Your task to perform on an android device: Set an alarm for 7am Image 0: 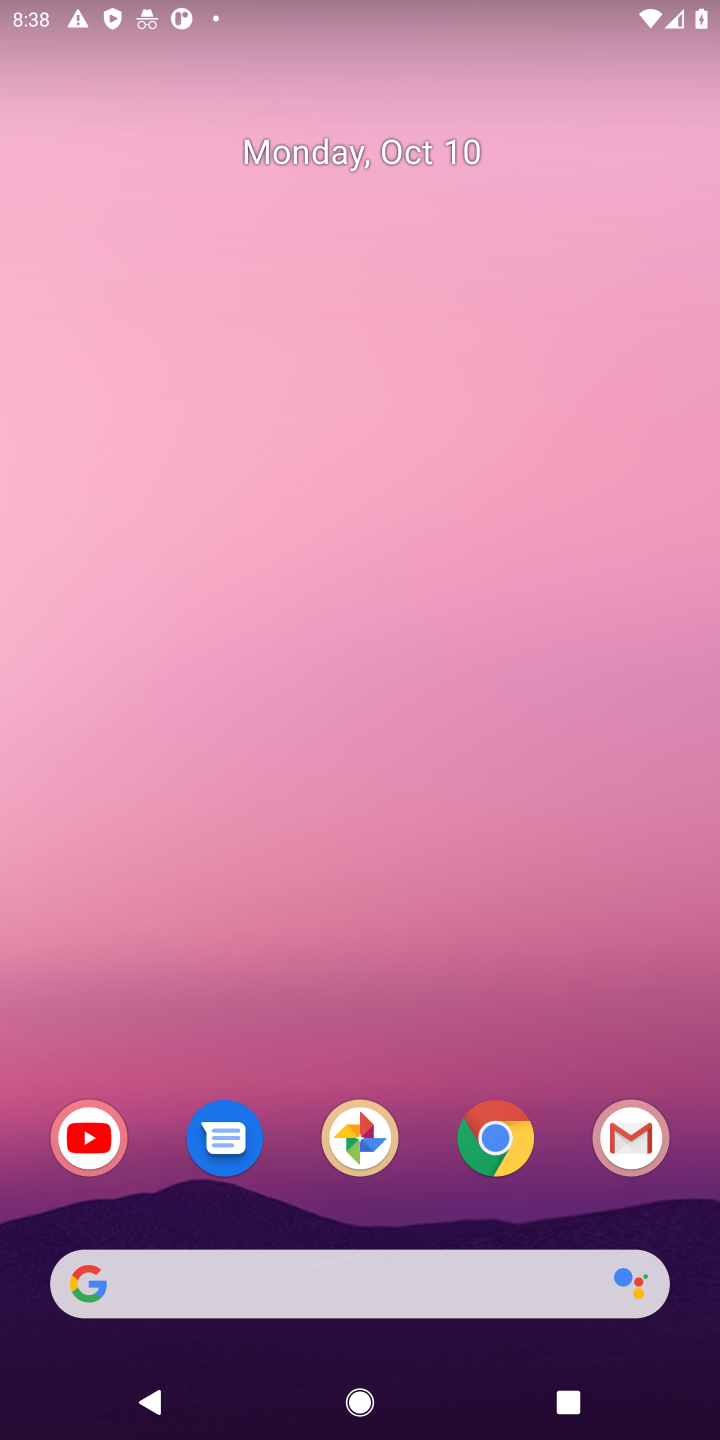
Step 0: drag from (425, 1156) to (471, 86)
Your task to perform on an android device: Set an alarm for 7am Image 1: 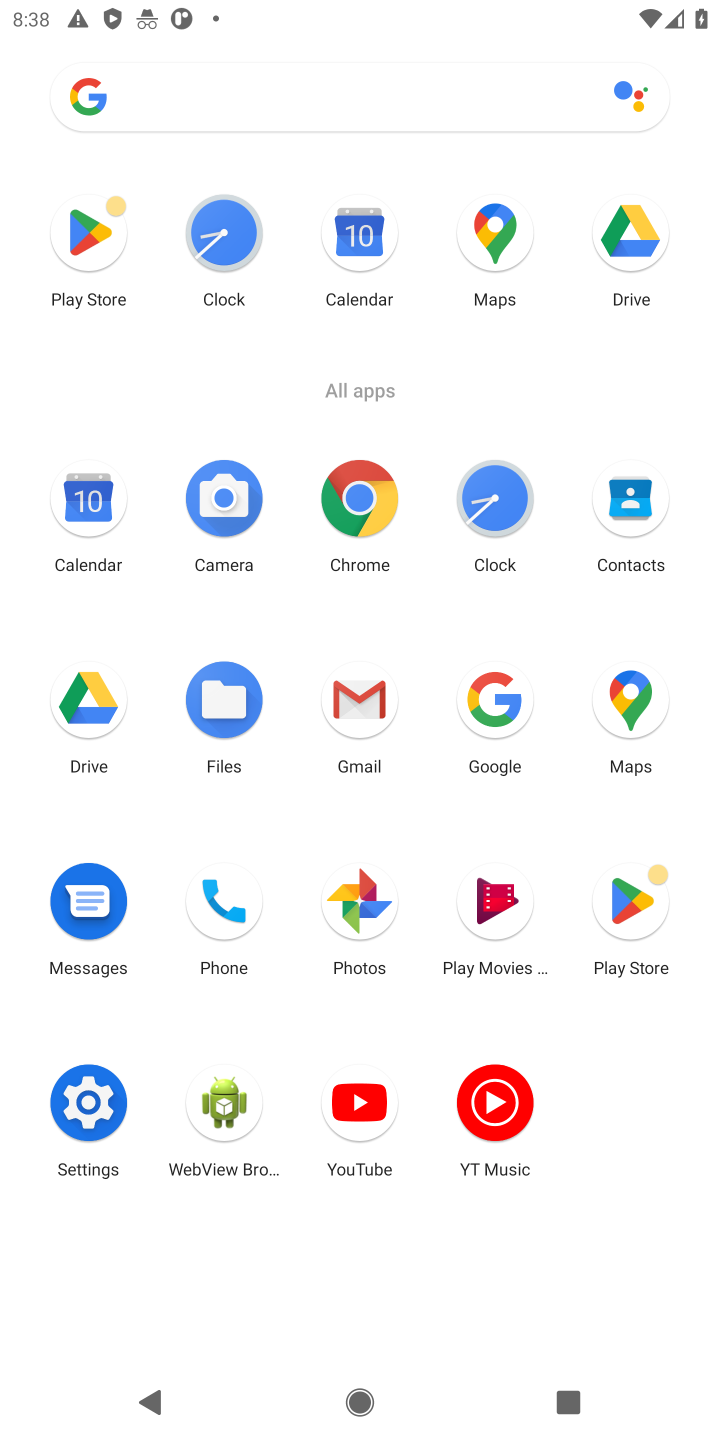
Step 1: click (495, 499)
Your task to perform on an android device: Set an alarm for 7am Image 2: 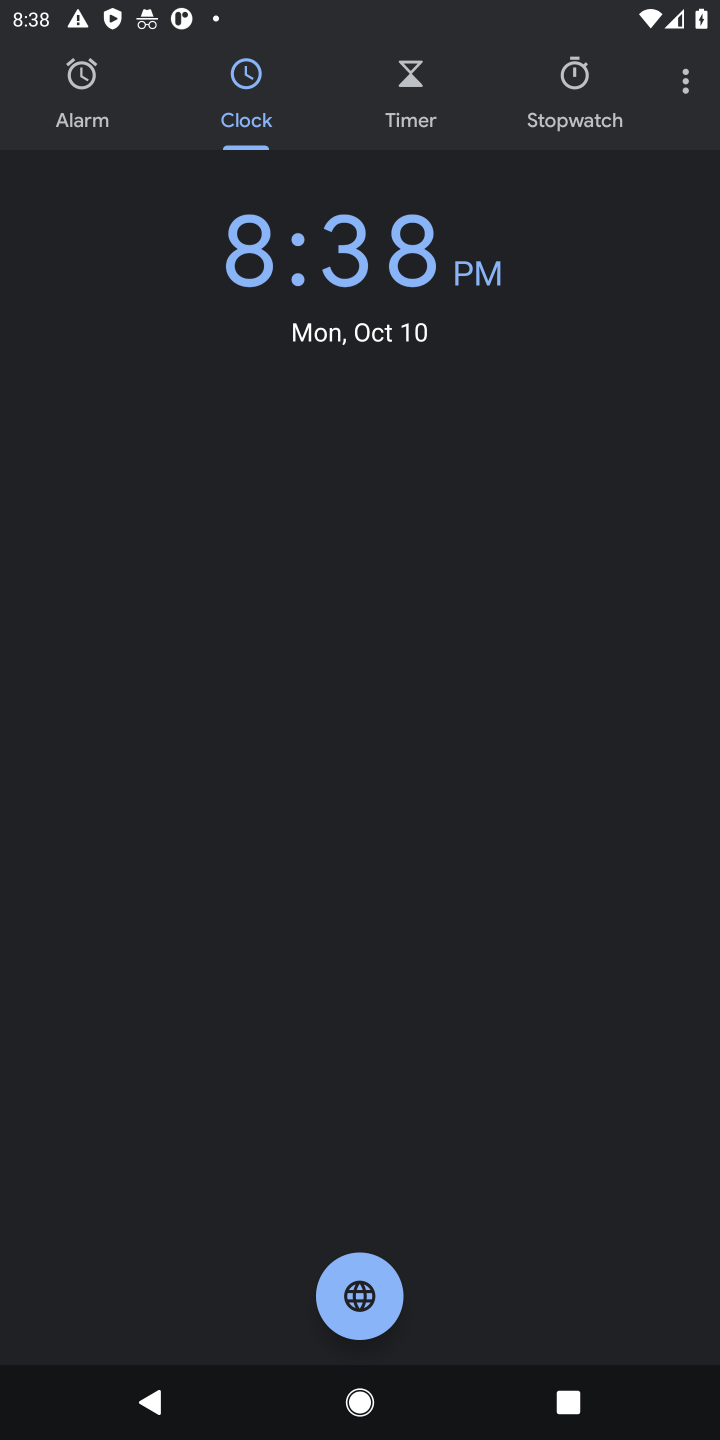
Step 2: click (91, 83)
Your task to perform on an android device: Set an alarm for 7am Image 3: 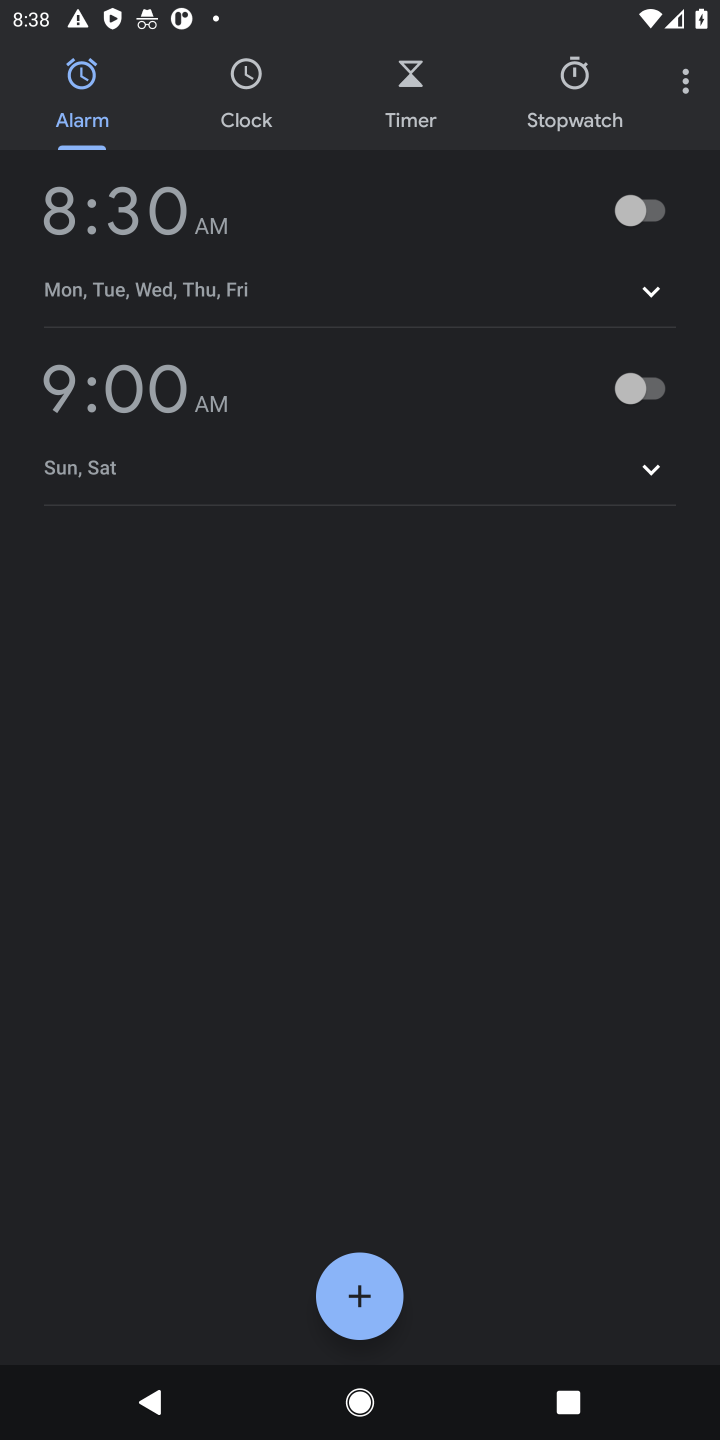
Step 3: click (360, 1292)
Your task to perform on an android device: Set an alarm for 7am Image 4: 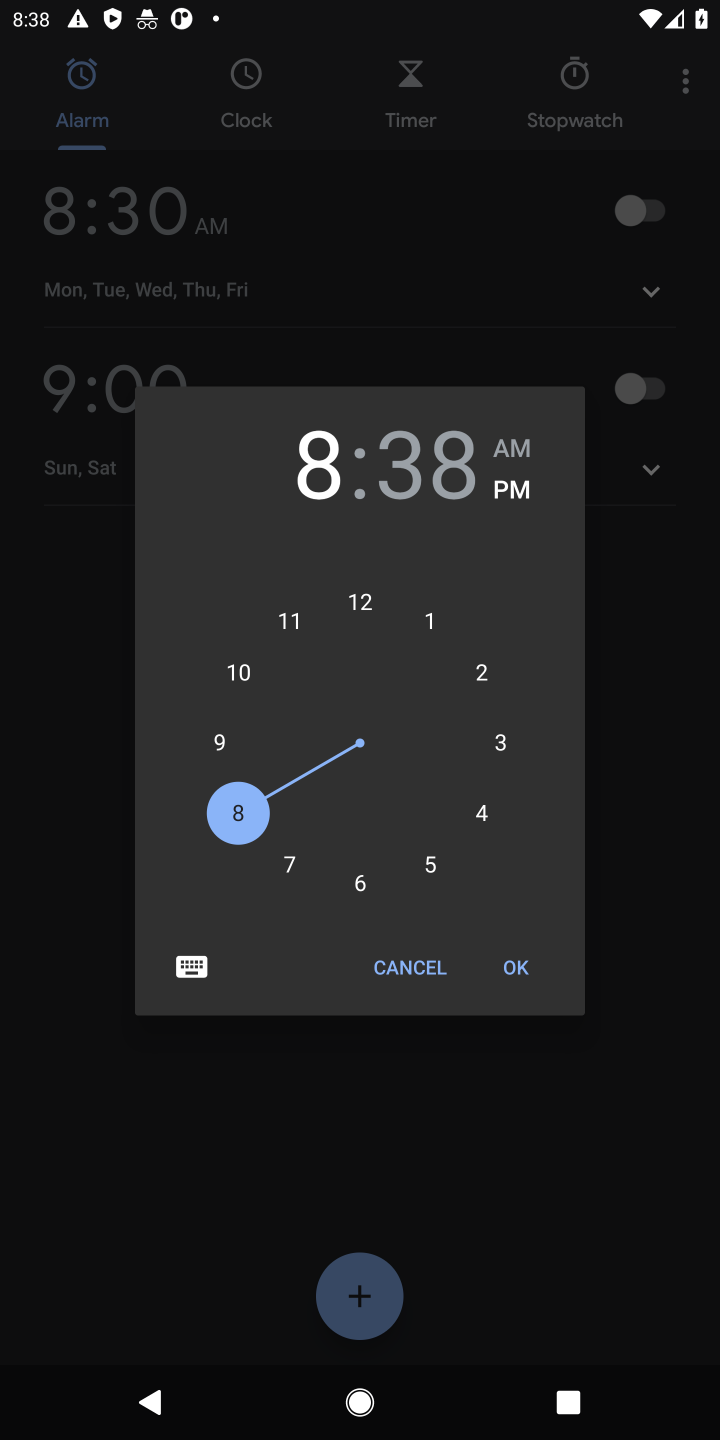
Step 4: click (290, 869)
Your task to perform on an android device: Set an alarm for 7am Image 5: 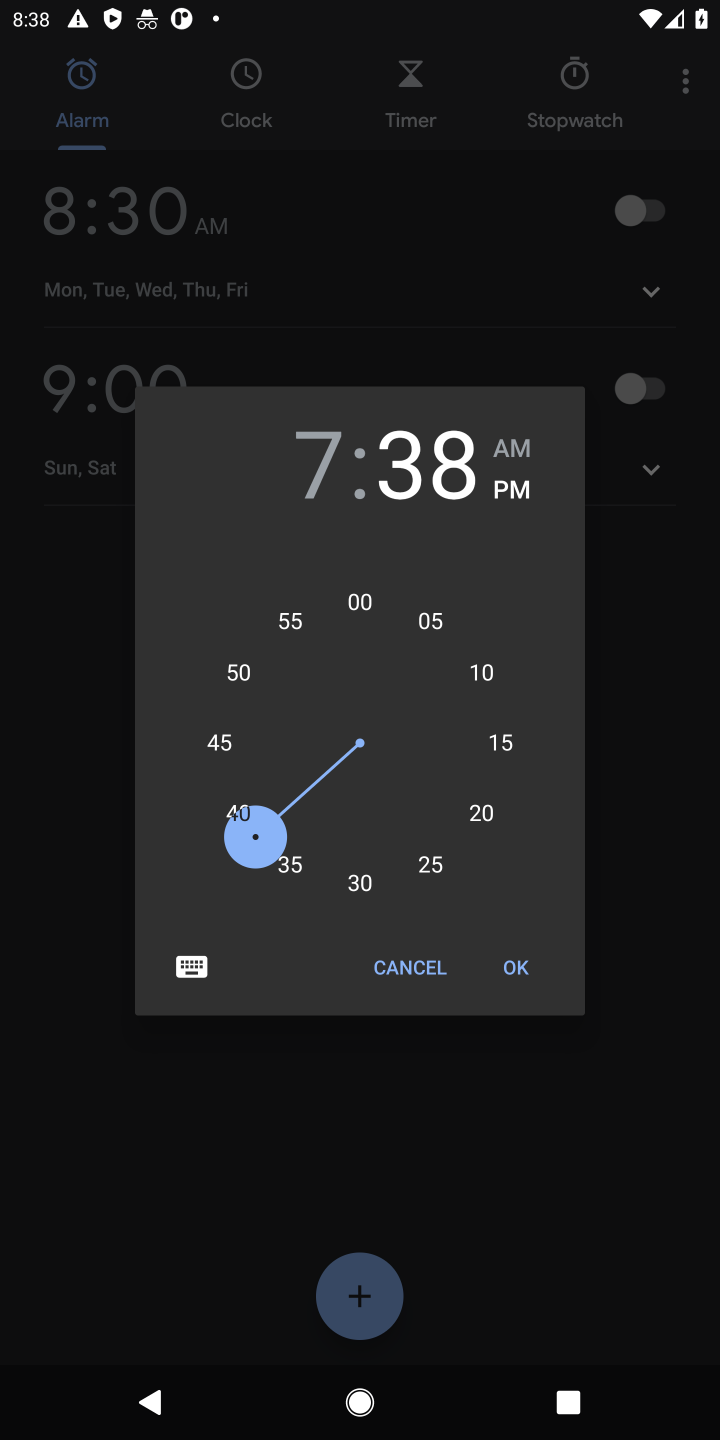
Step 5: click (360, 607)
Your task to perform on an android device: Set an alarm for 7am Image 6: 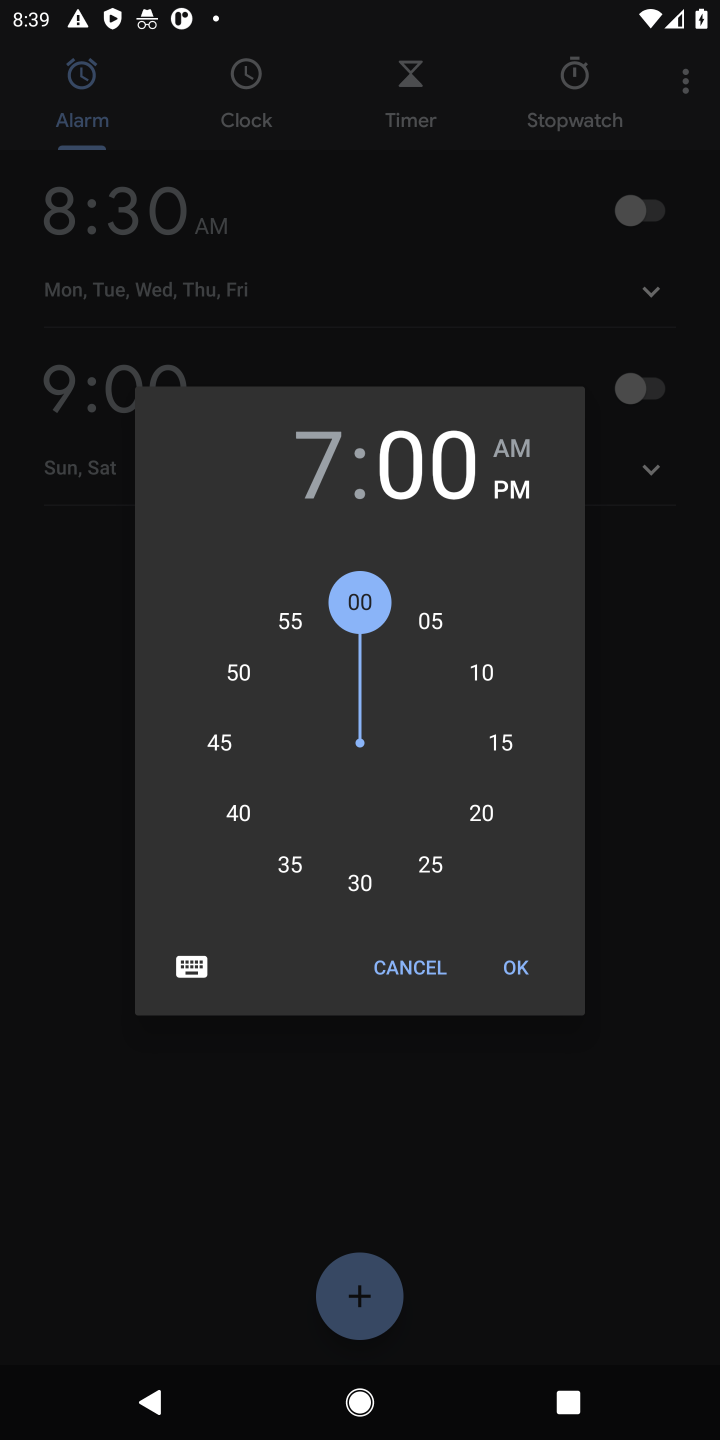
Step 6: click (511, 450)
Your task to perform on an android device: Set an alarm for 7am Image 7: 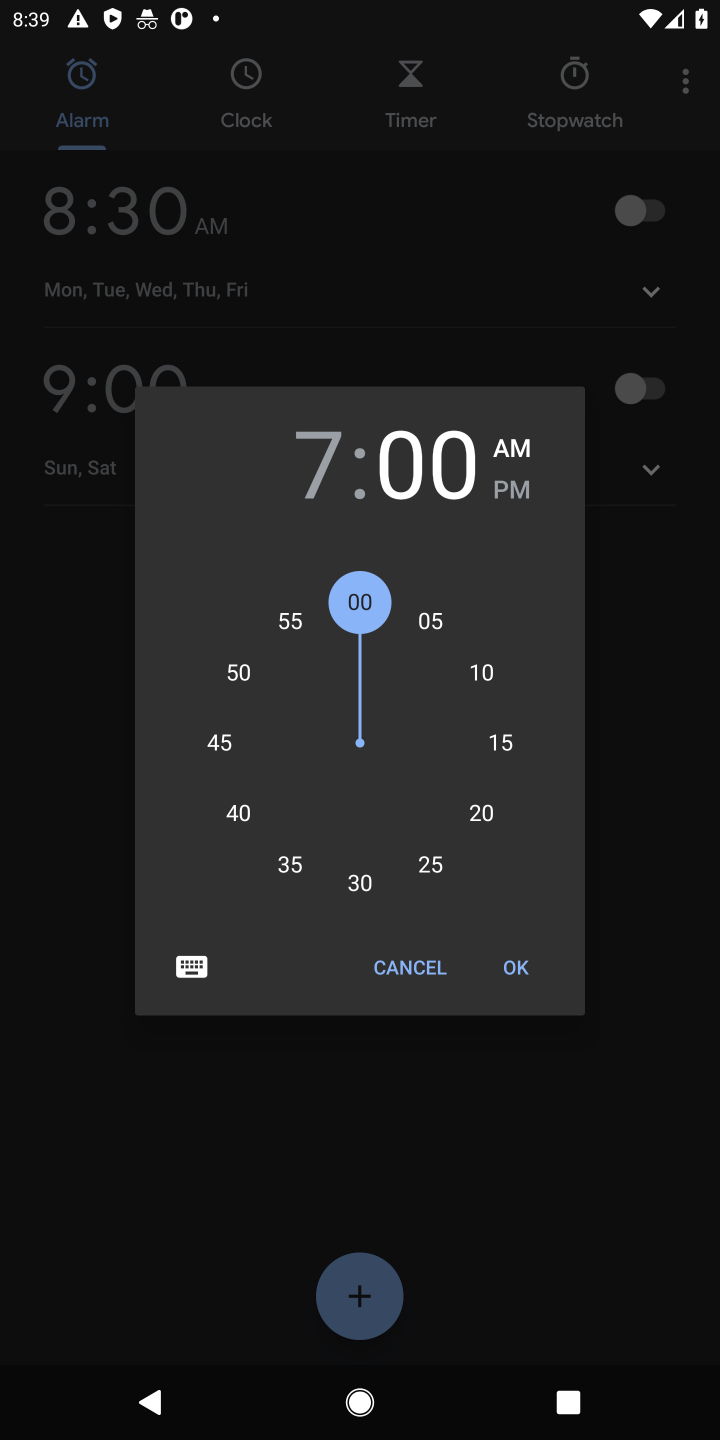
Step 7: click (526, 962)
Your task to perform on an android device: Set an alarm for 7am Image 8: 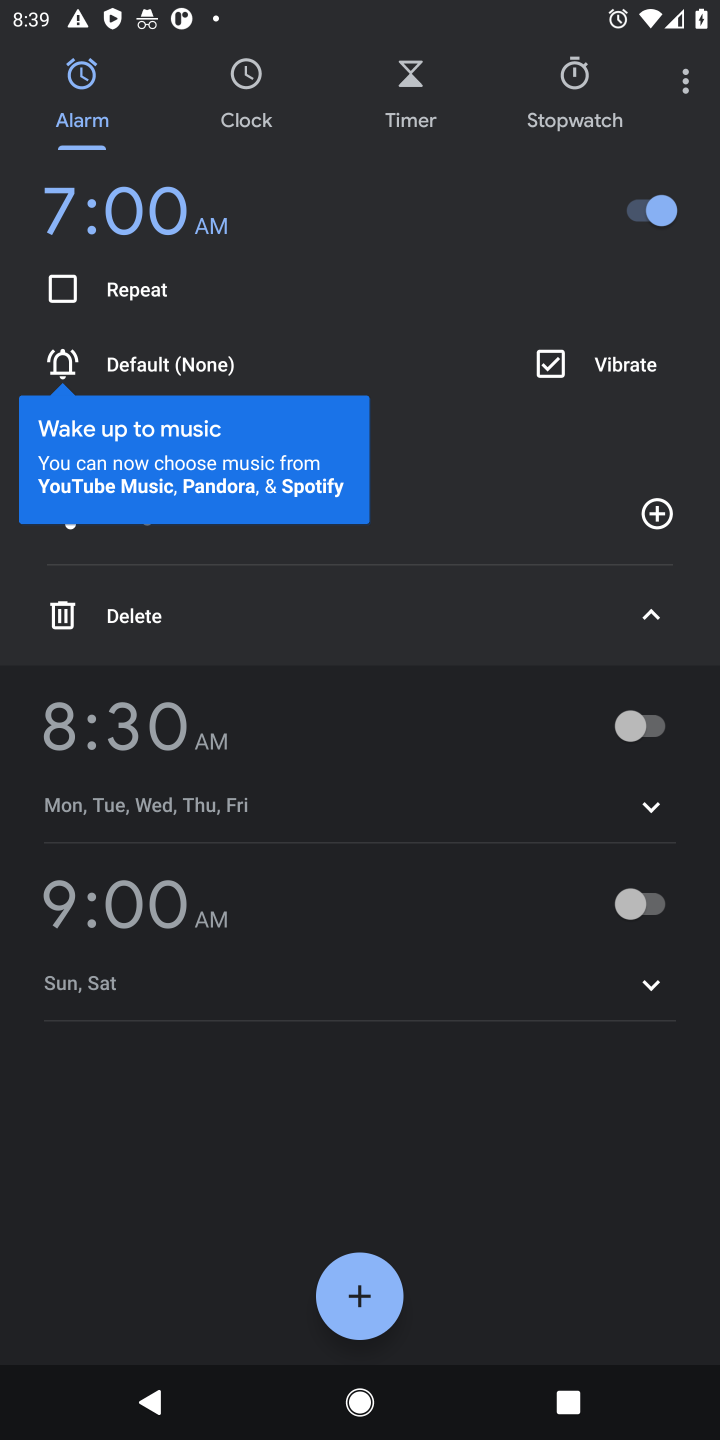
Step 8: click (651, 610)
Your task to perform on an android device: Set an alarm for 7am Image 9: 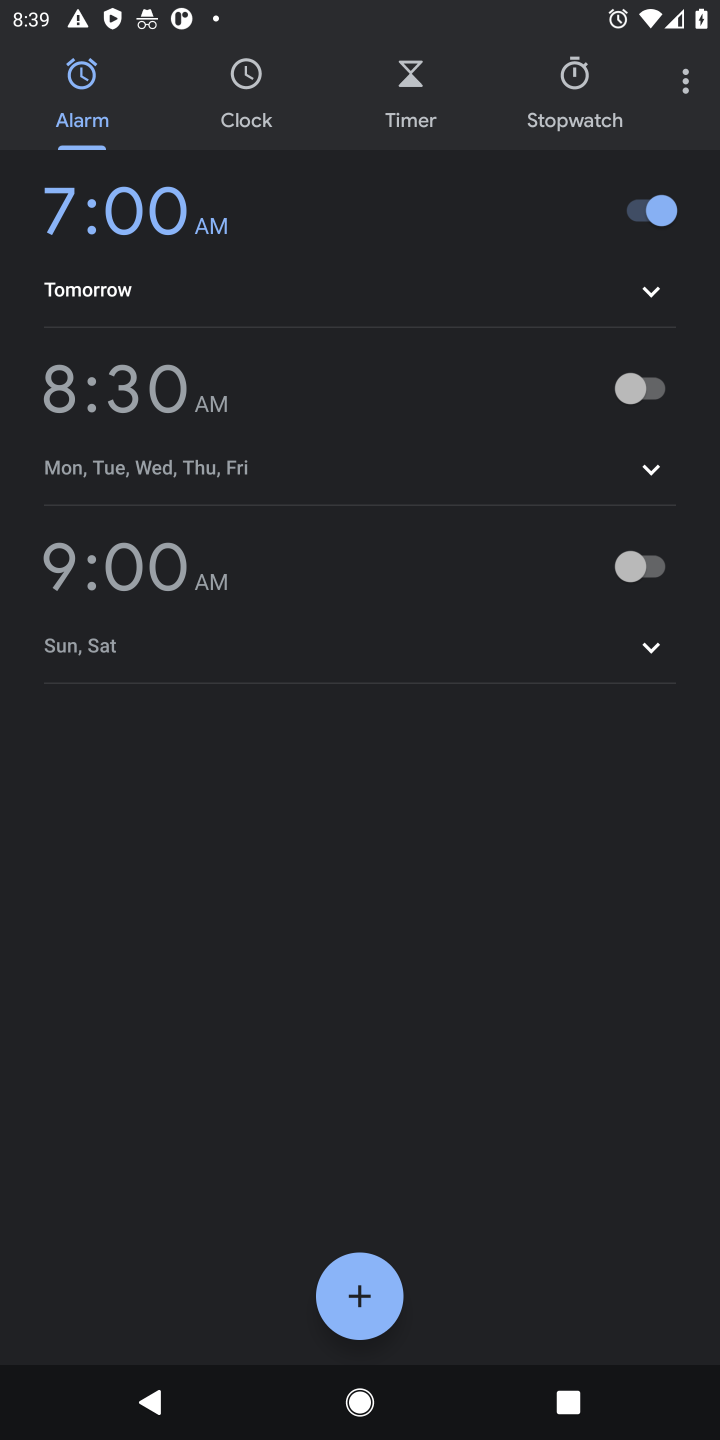
Step 9: task complete